Your task to perform on an android device: Go to accessibility settings Image 0: 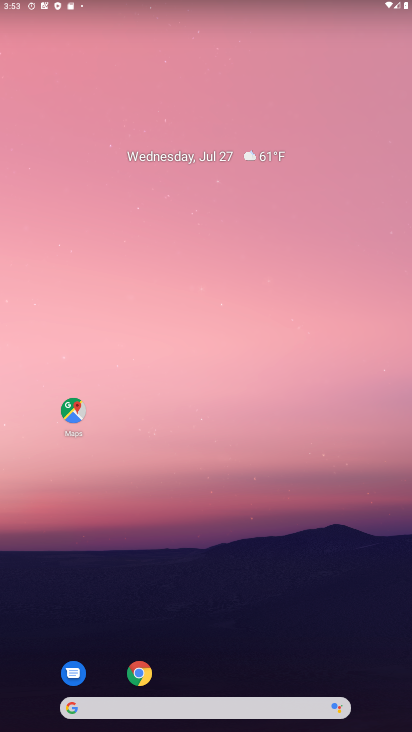
Step 0: drag from (46, 702) to (376, 34)
Your task to perform on an android device: Go to accessibility settings Image 1: 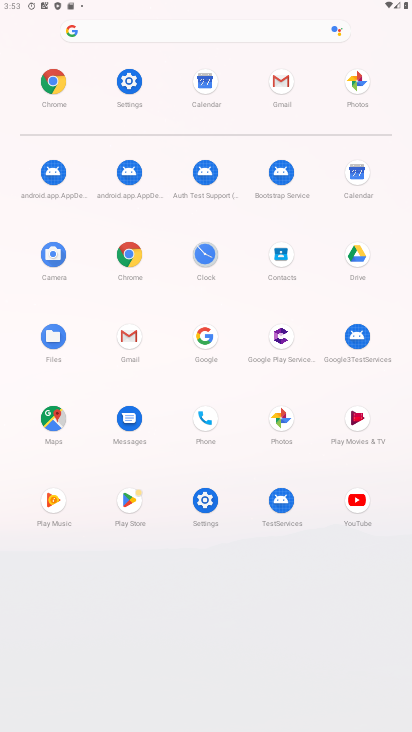
Step 1: click (205, 507)
Your task to perform on an android device: Go to accessibility settings Image 2: 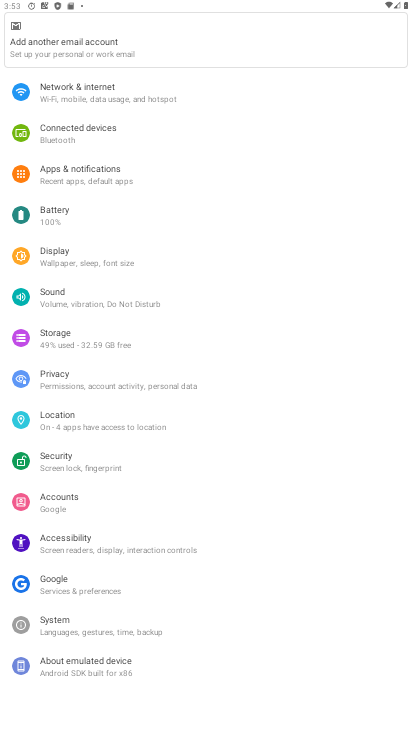
Step 2: click (80, 545)
Your task to perform on an android device: Go to accessibility settings Image 3: 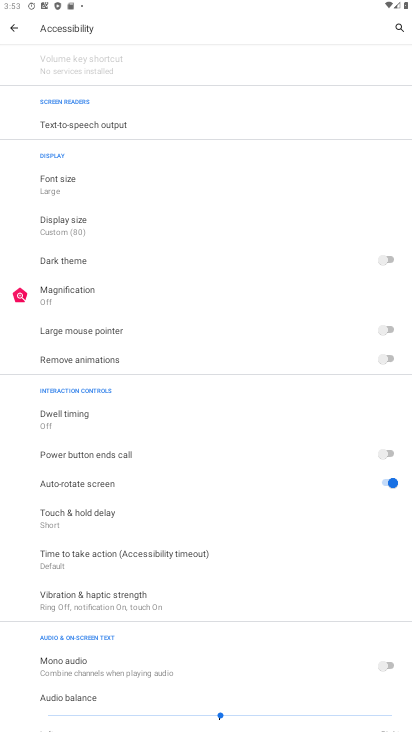
Step 3: task complete